Your task to perform on an android device: Play the last video I watched on Youtube Image 0: 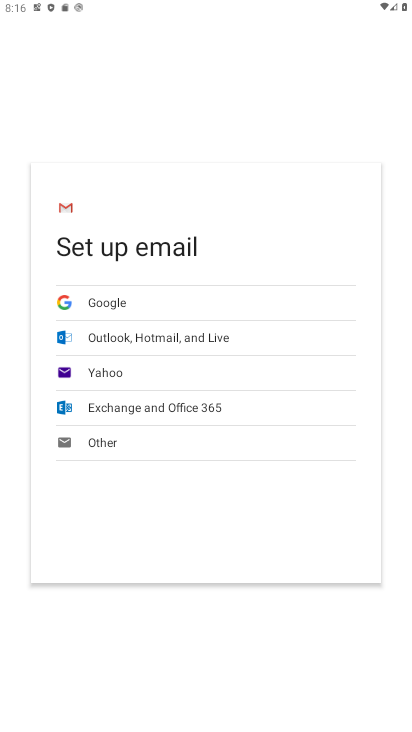
Step 0: press home button
Your task to perform on an android device: Play the last video I watched on Youtube Image 1: 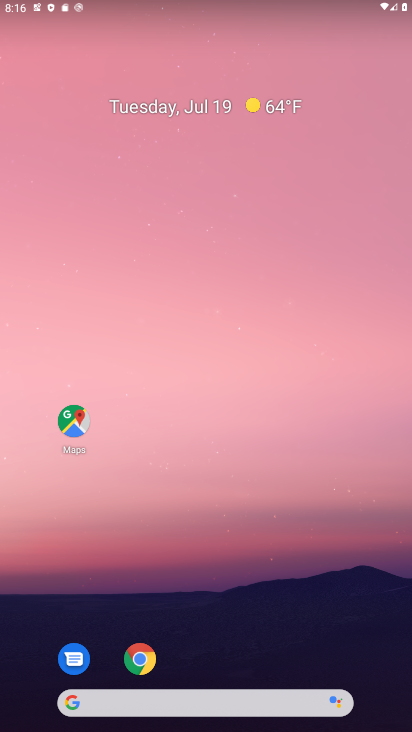
Step 1: drag from (195, 638) to (309, 22)
Your task to perform on an android device: Play the last video I watched on Youtube Image 2: 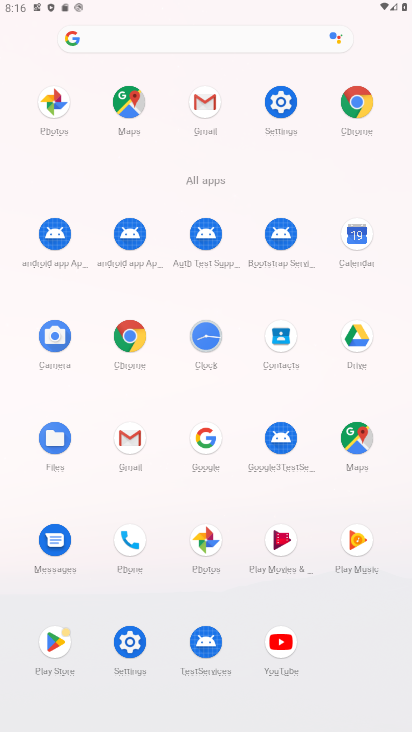
Step 2: click (288, 657)
Your task to perform on an android device: Play the last video I watched on Youtube Image 3: 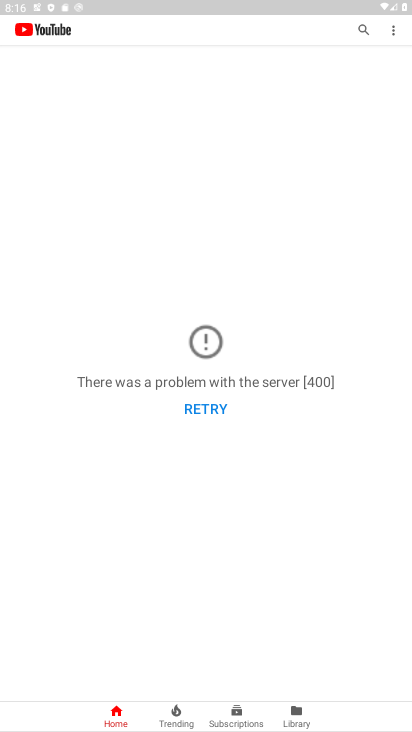
Step 3: click (284, 714)
Your task to perform on an android device: Play the last video I watched on Youtube Image 4: 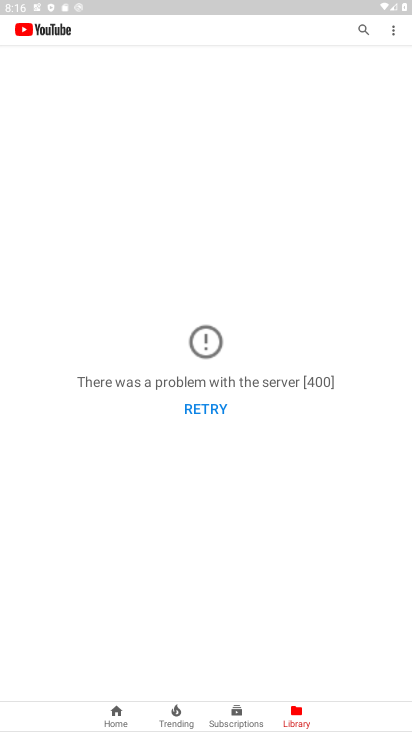
Step 4: task complete